Your task to perform on an android device: Open calendar and show me the fourth week of next month Image 0: 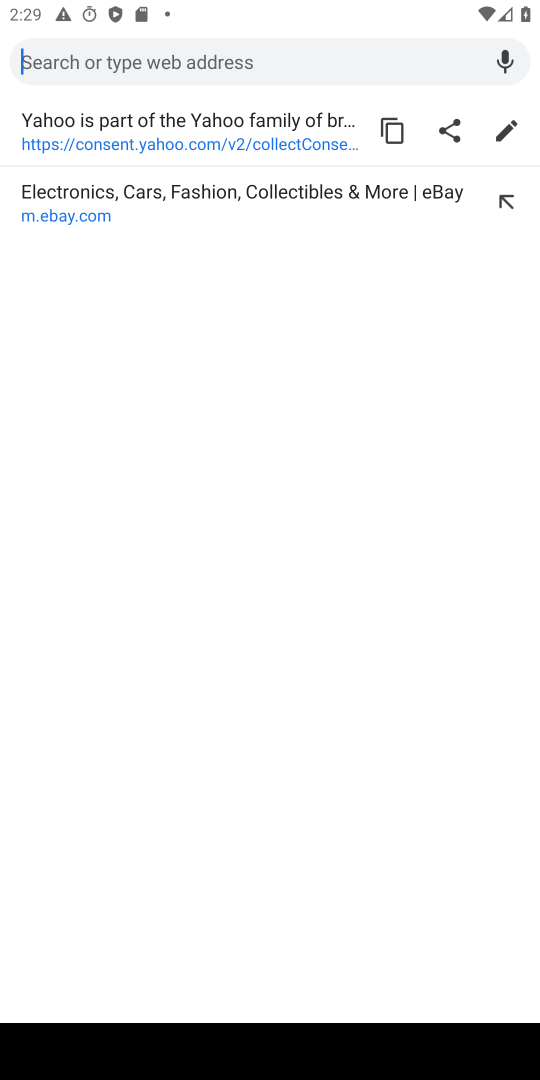
Step 0: press home button
Your task to perform on an android device: Open calendar and show me the fourth week of next month Image 1: 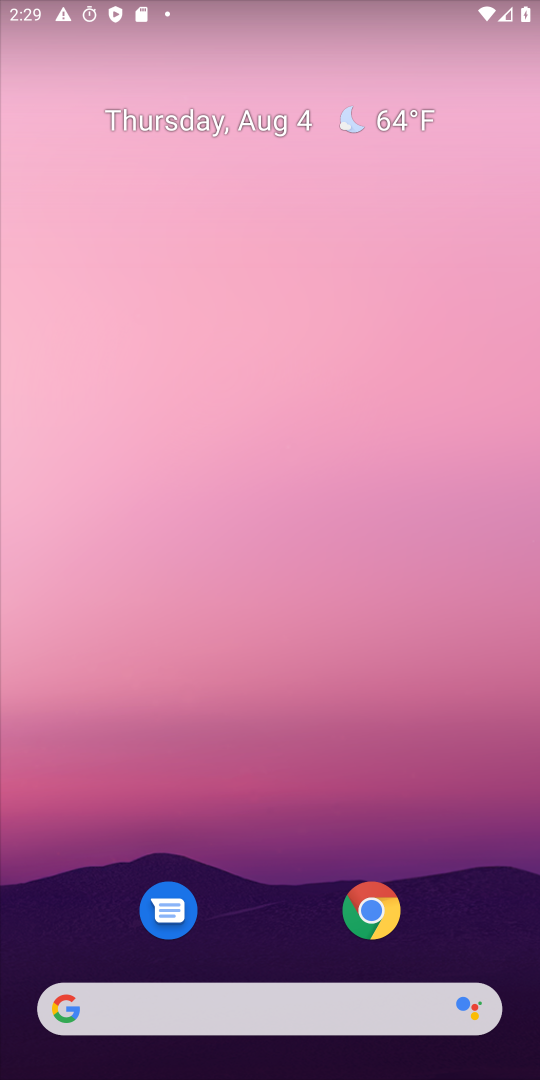
Step 1: drag from (261, 901) to (152, 212)
Your task to perform on an android device: Open calendar and show me the fourth week of next month Image 2: 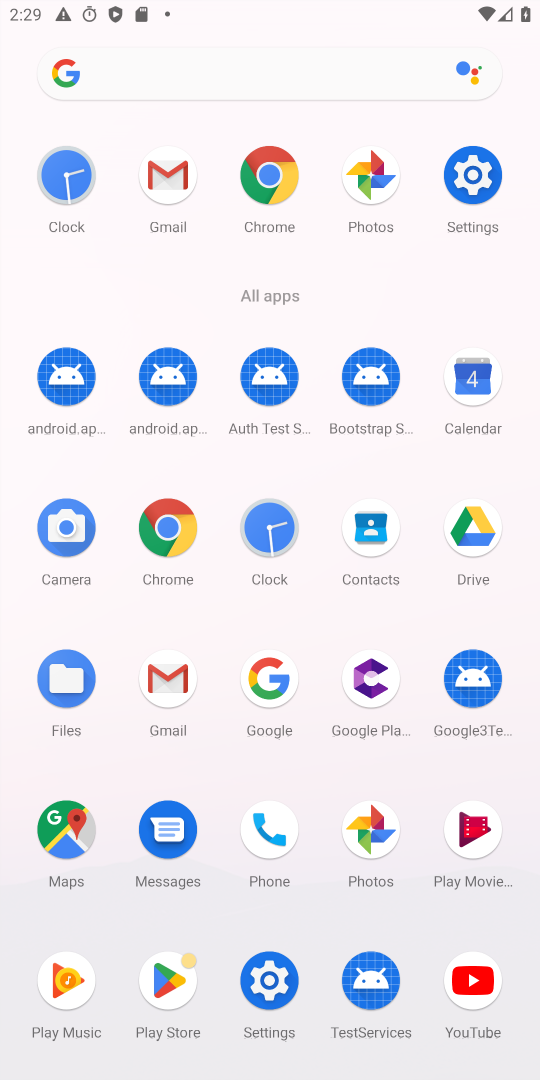
Step 2: click (469, 383)
Your task to perform on an android device: Open calendar and show me the fourth week of next month Image 3: 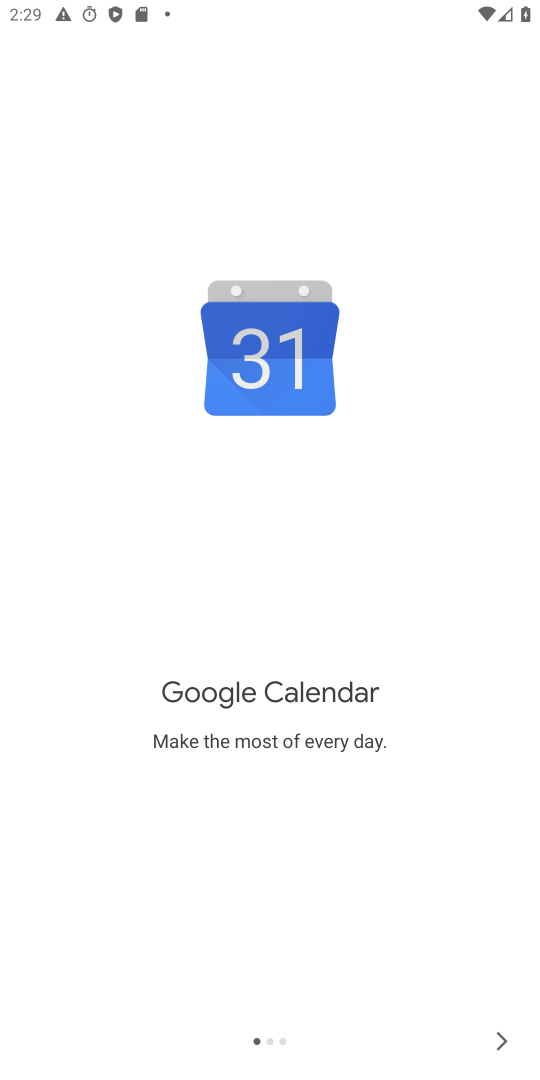
Step 3: click (496, 1048)
Your task to perform on an android device: Open calendar and show me the fourth week of next month Image 4: 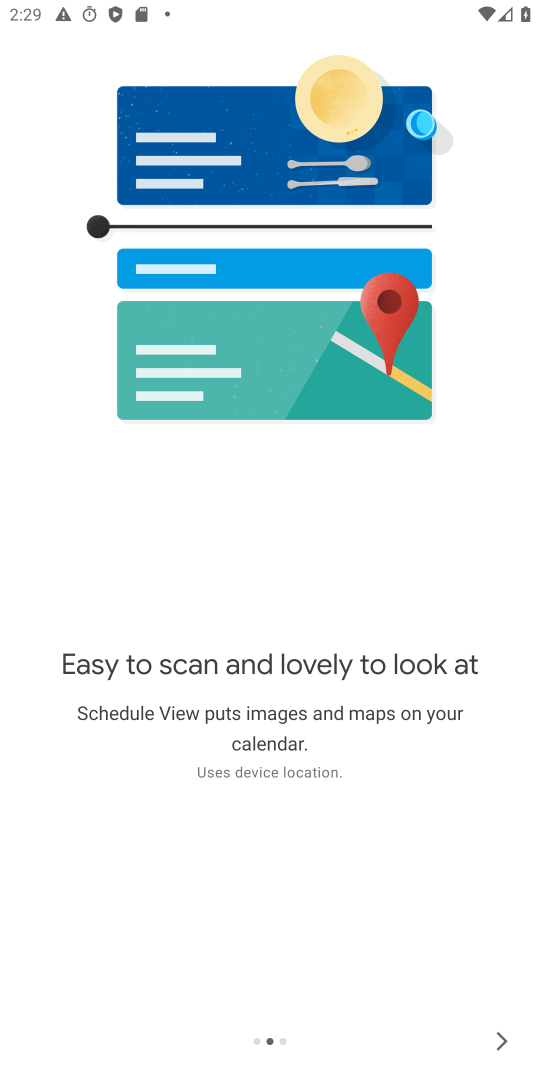
Step 4: click (496, 1048)
Your task to perform on an android device: Open calendar and show me the fourth week of next month Image 5: 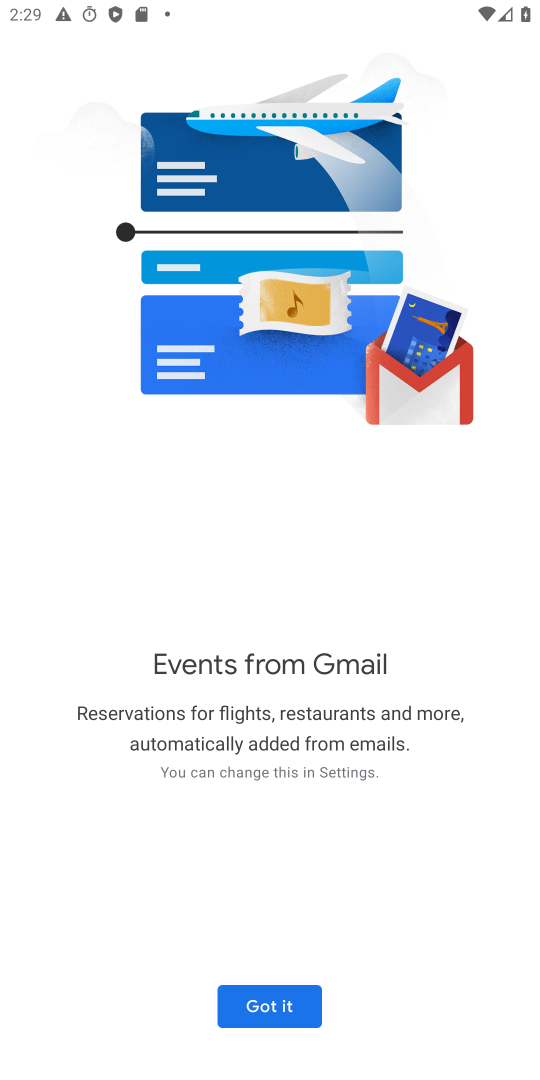
Step 5: click (292, 1001)
Your task to perform on an android device: Open calendar and show me the fourth week of next month Image 6: 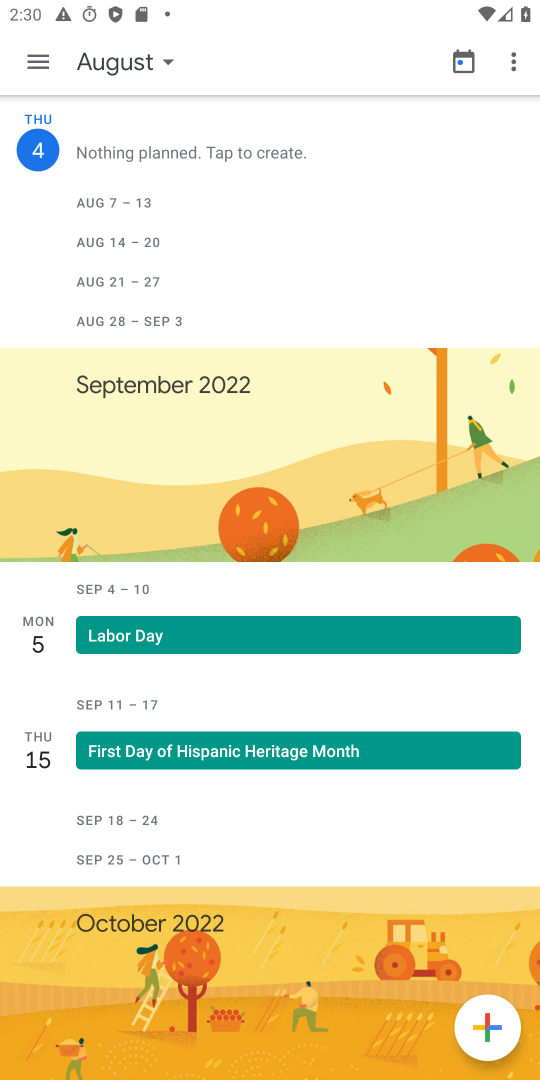
Step 6: click (131, 58)
Your task to perform on an android device: Open calendar and show me the fourth week of next month Image 7: 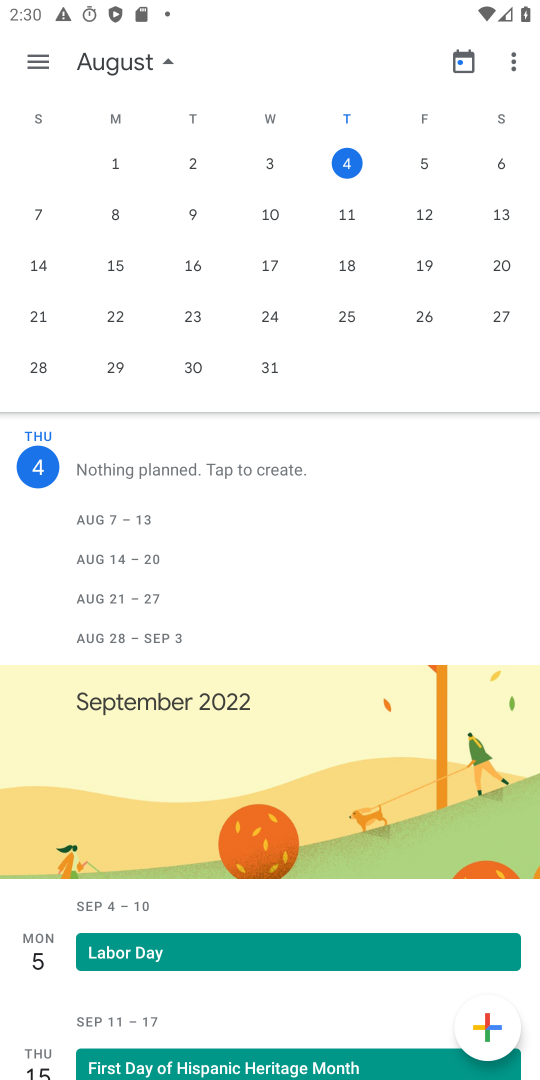
Step 7: drag from (504, 283) to (3, 275)
Your task to perform on an android device: Open calendar and show me the fourth week of next month Image 8: 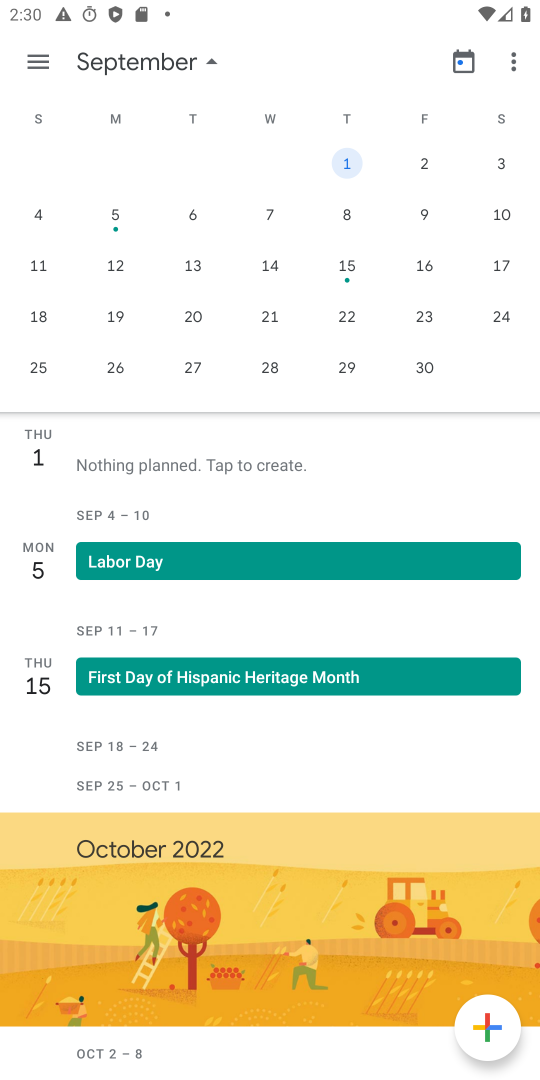
Step 8: click (33, 328)
Your task to perform on an android device: Open calendar and show me the fourth week of next month Image 9: 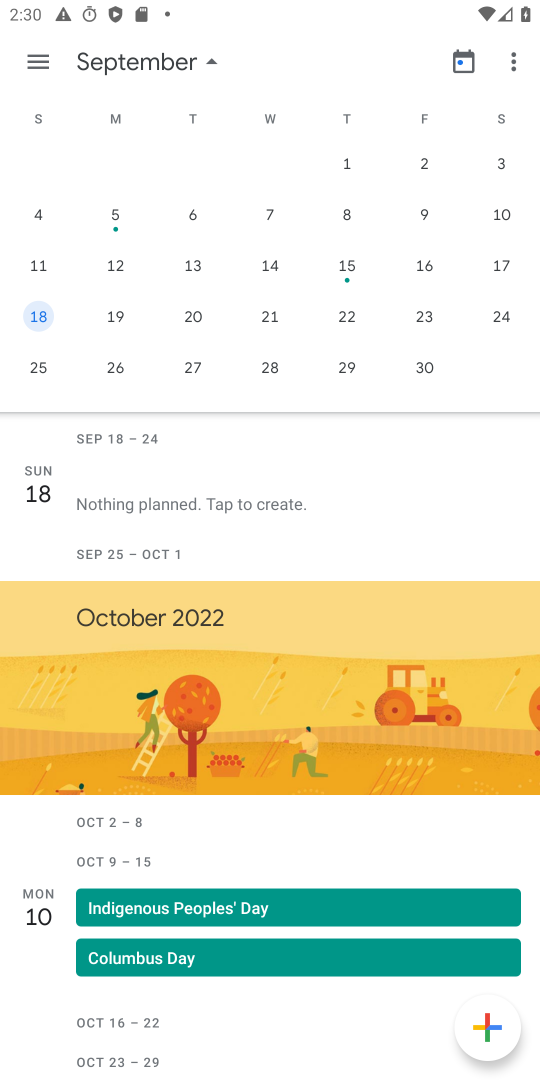
Step 9: task complete